Your task to perform on an android device: Go to Yahoo.com Image 0: 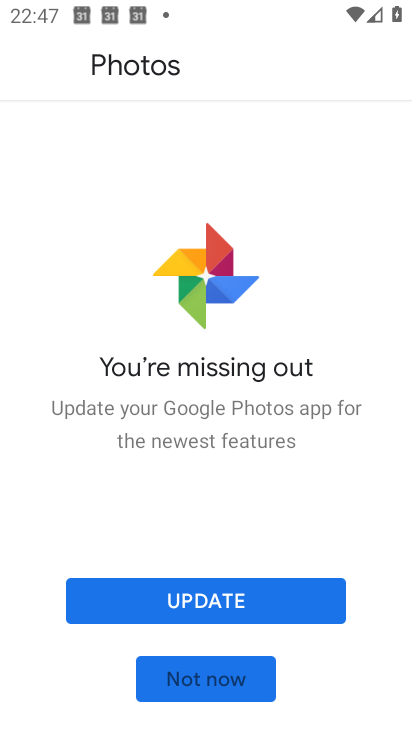
Step 0: press home button
Your task to perform on an android device: Go to Yahoo.com Image 1: 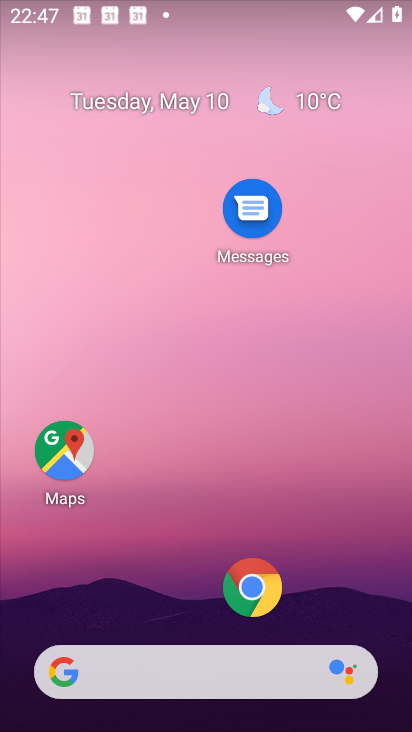
Step 1: click (271, 579)
Your task to perform on an android device: Go to Yahoo.com Image 2: 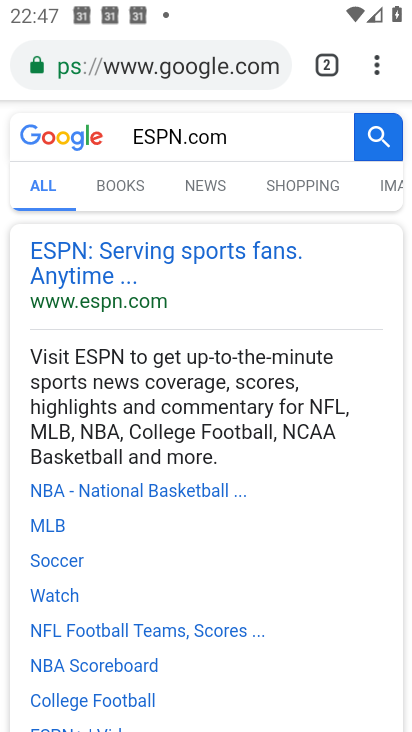
Step 2: click (230, 56)
Your task to perform on an android device: Go to Yahoo.com Image 3: 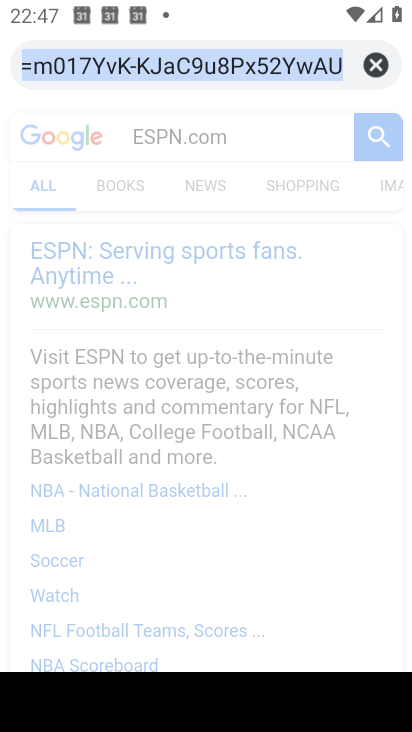
Step 3: type "yahoo.com"
Your task to perform on an android device: Go to Yahoo.com Image 4: 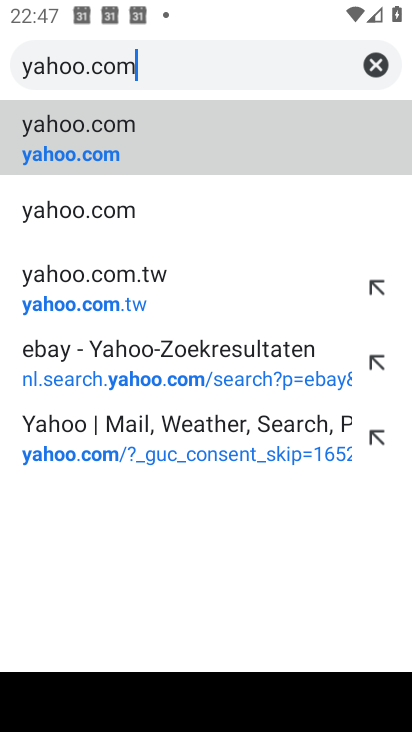
Step 4: click (191, 144)
Your task to perform on an android device: Go to Yahoo.com Image 5: 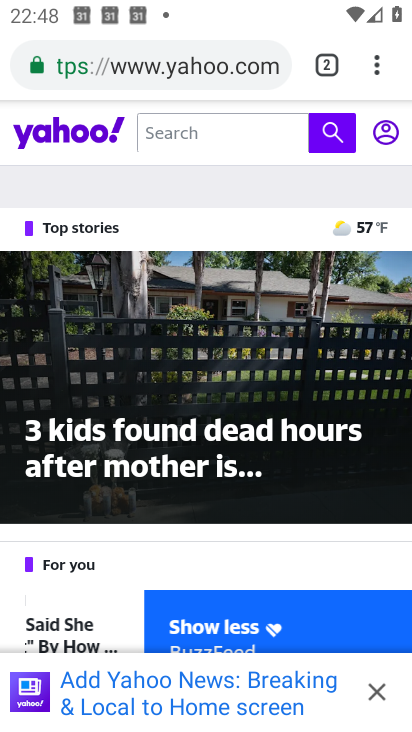
Step 5: task complete